Your task to perform on an android device: Open the Play Movies app and select the watchlist tab. Image 0: 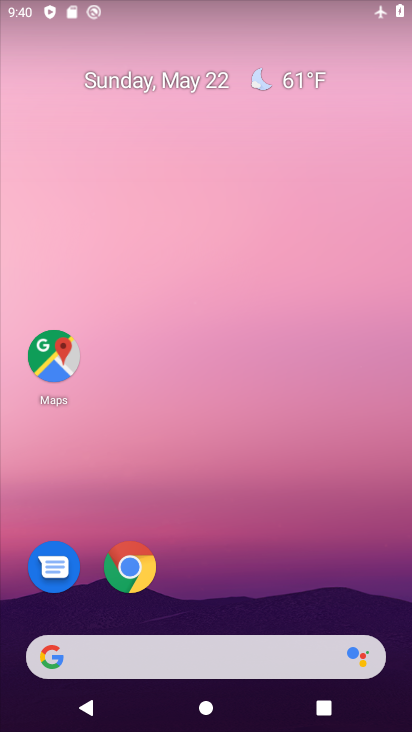
Step 0: drag from (214, 625) to (186, 15)
Your task to perform on an android device: Open the Play Movies app and select the watchlist tab. Image 1: 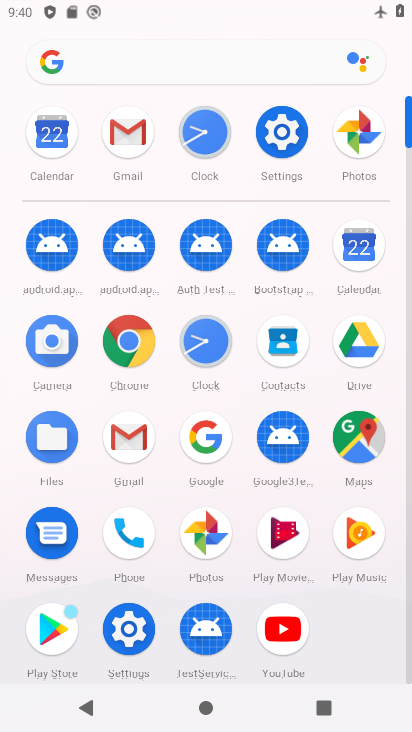
Step 1: click (277, 552)
Your task to perform on an android device: Open the Play Movies app and select the watchlist tab. Image 2: 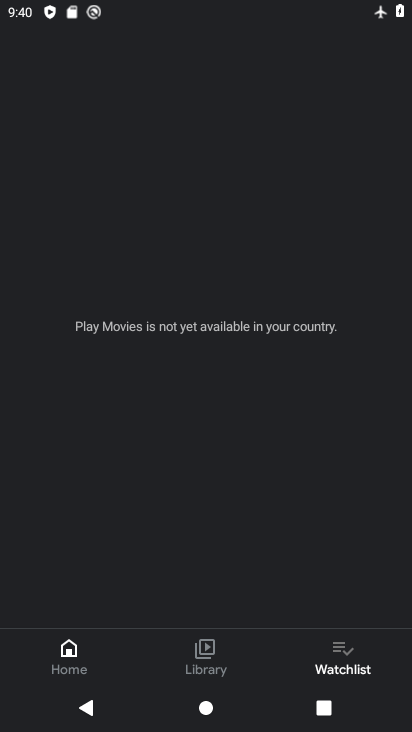
Step 2: click (339, 653)
Your task to perform on an android device: Open the Play Movies app and select the watchlist tab. Image 3: 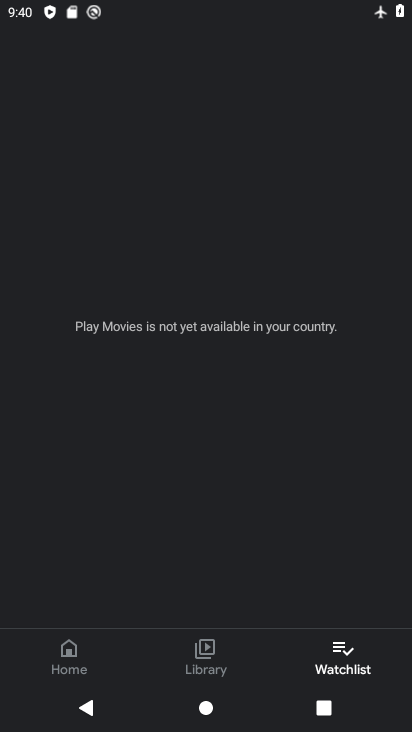
Step 3: task complete